Your task to perform on an android device: turn on showing notifications on the lock screen Image 0: 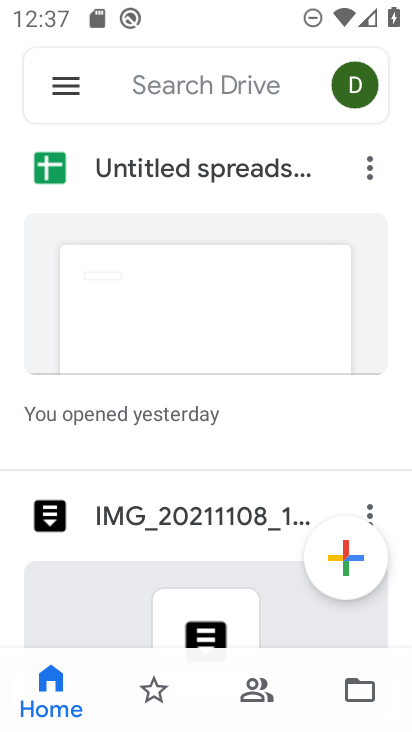
Step 0: press home button
Your task to perform on an android device: turn on showing notifications on the lock screen Image 1: 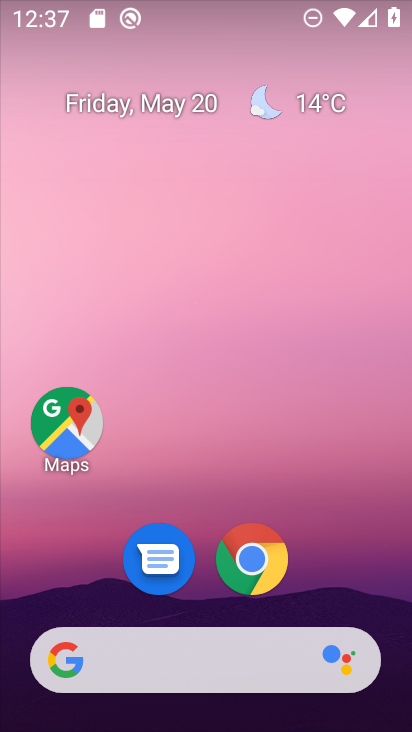
Step 1: drag from (337, 607) to (298, 125)
Your task to perform on an android device: turn on showing notifications on the lock screen Image 2: 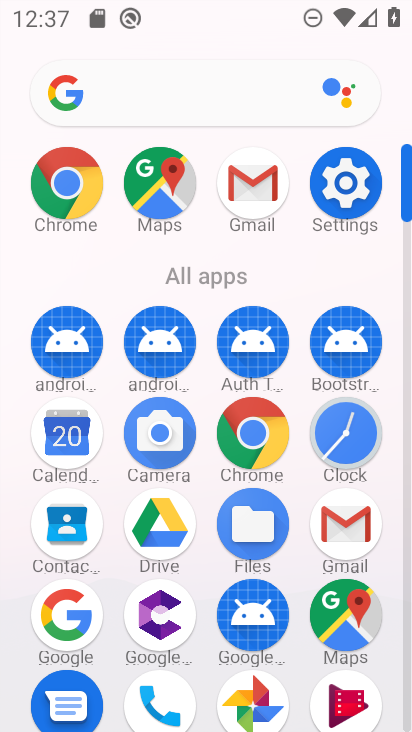
Step 2: click (334, 178)
Your task to perform on an android device: turn on showing notifications on the lock screen Image 3: 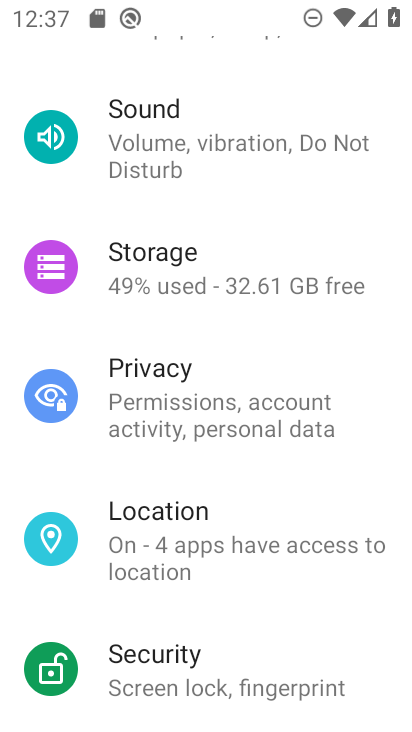
Step 3: click (210, 643)
Your task to perform on an android device: turn on showing notifications on the lock screen Image 4: 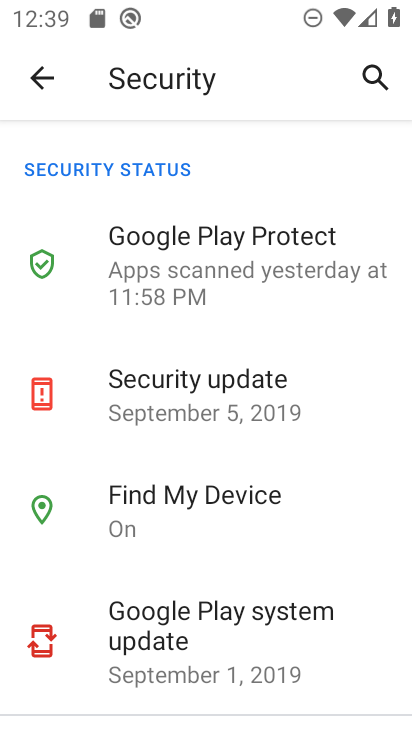
Step 4: task complete